Your task to perform on an android device: Search for a 3D printer on aliexpress. Image 0: 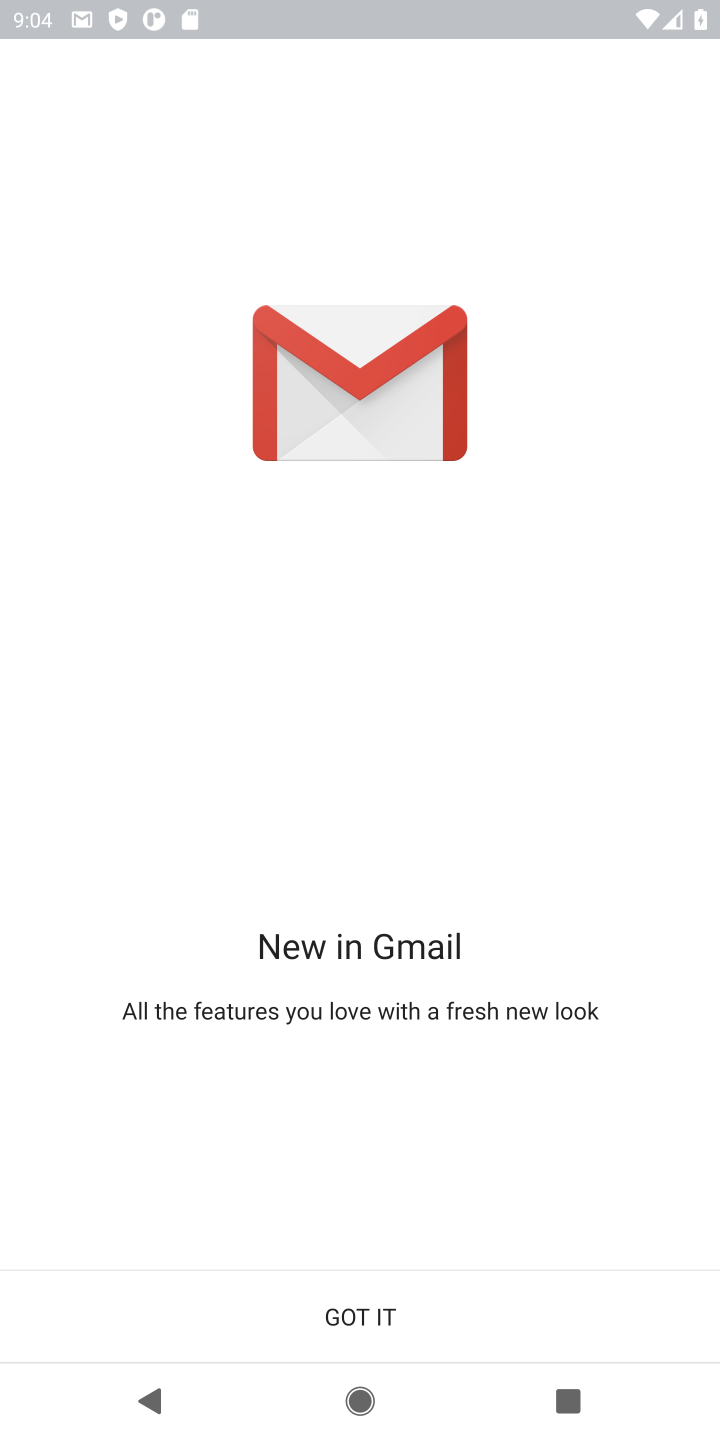
Step 0: press home button
Your task to perform on an android device: Search for a 3D printer on aliexpress. Image 1: 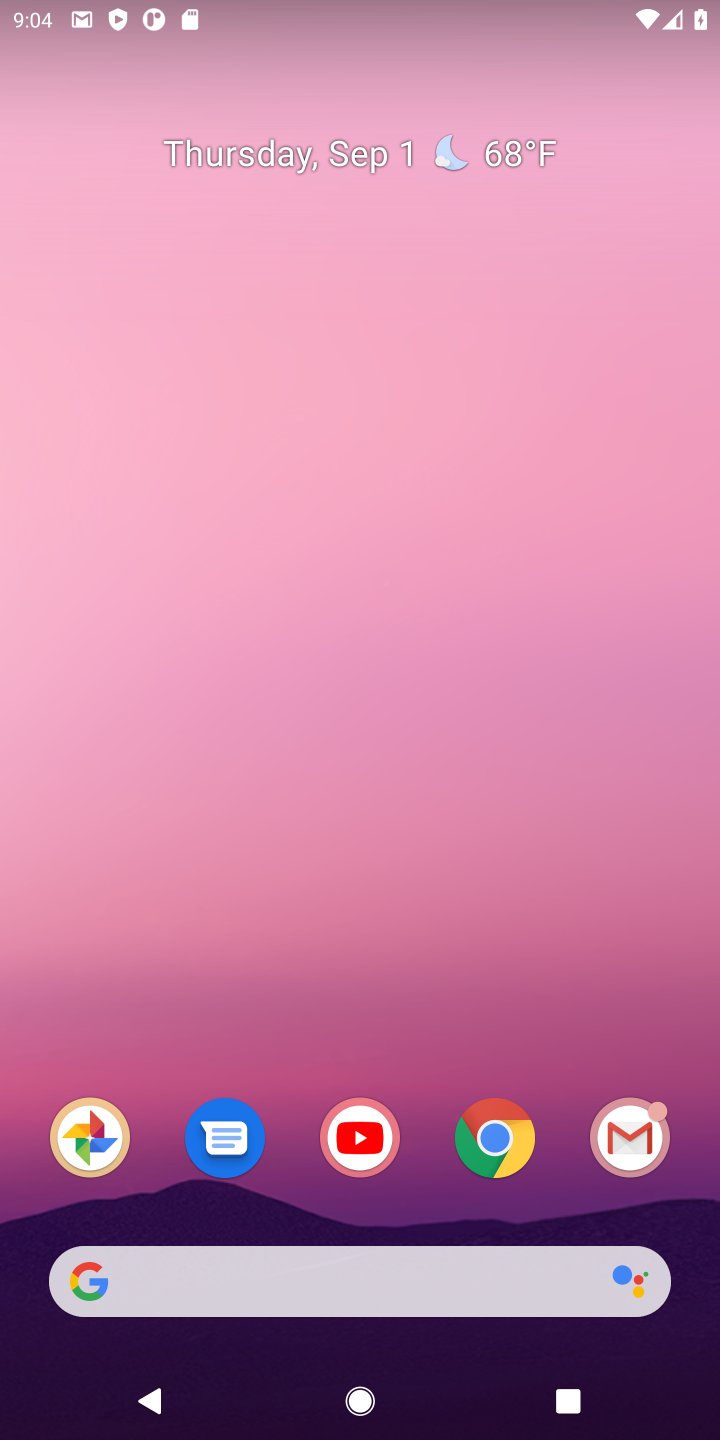
Step 1: click (509, 1126)
Your task to perform on an android device: Search for a 3D printer on aliexpress. Image 2: 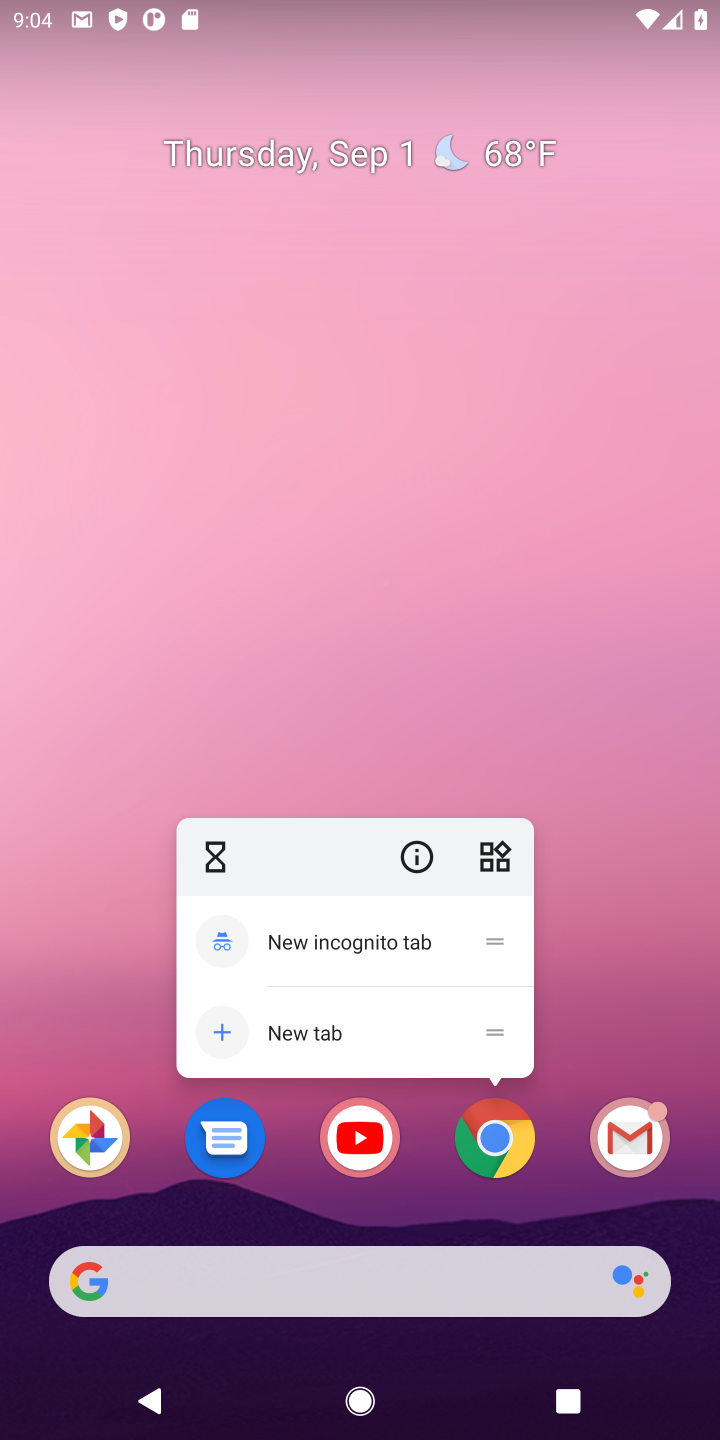
Step 2: click (509, 1126)
Your task to perform on an android device: Search for a 3D printer on aliexpress. Image 3: 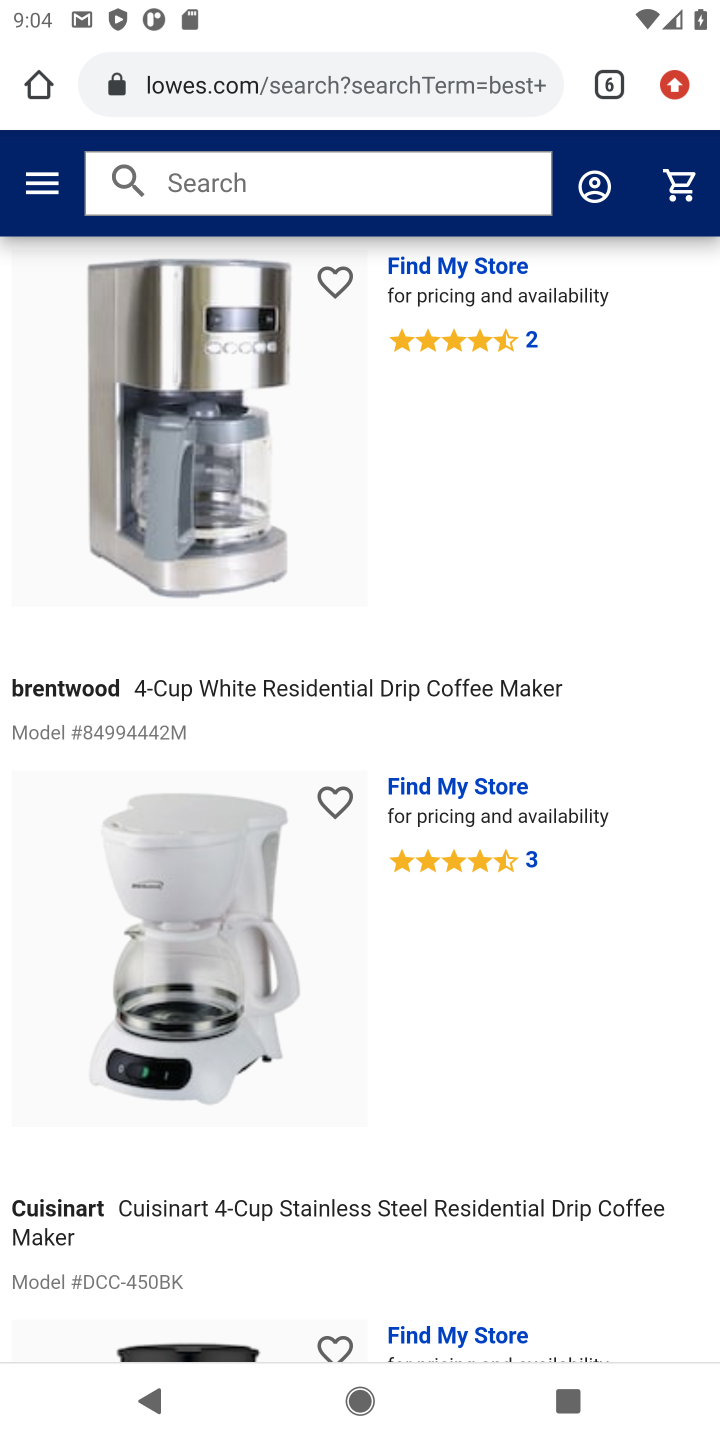
Step 3: click (610, 86)
Your task to perform on an android device: Search for a 3D printer on aliexpress. Image 4: 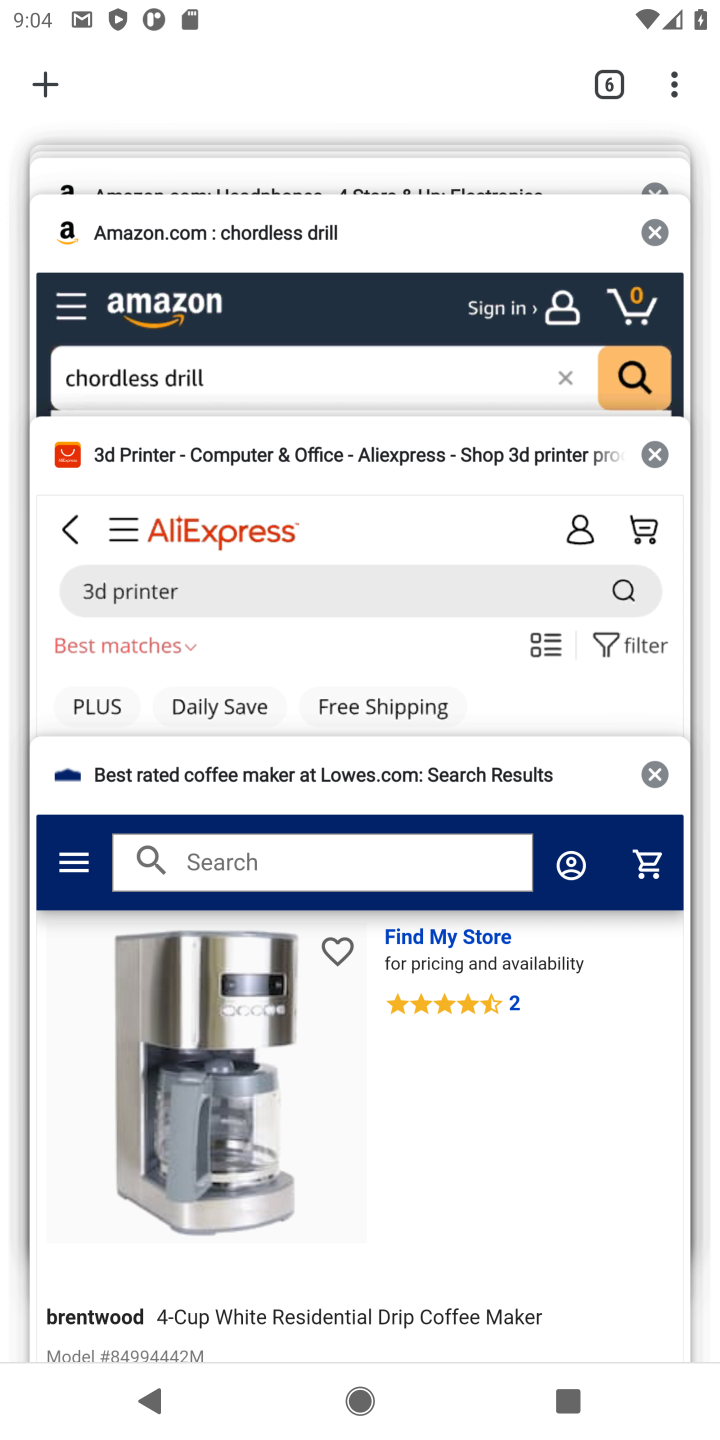
Step 4: click (216, 472)
Your task to perform on an android device: Search for a 3D printer on aliexpress. Image 5: 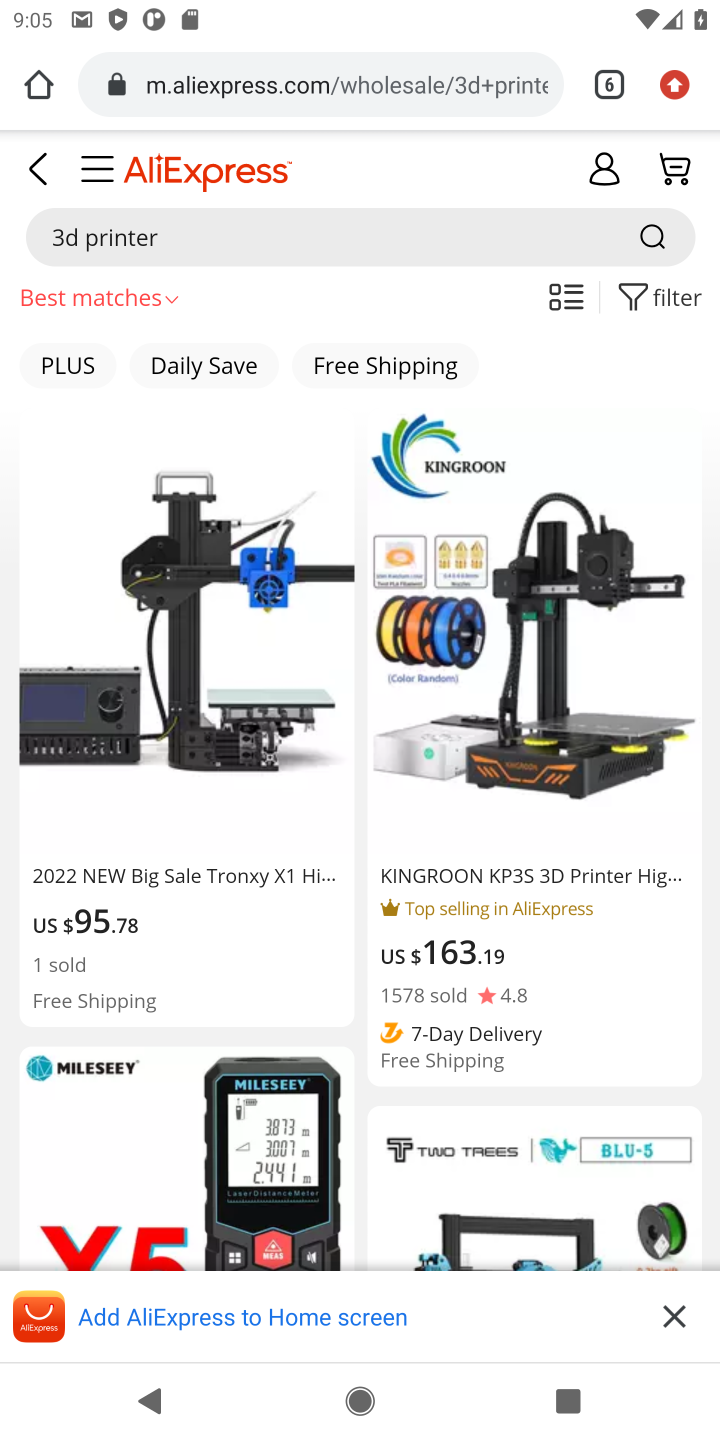
Step 5: task complete